Your task to perform on an android device: create a new album in the google photos Image 0: 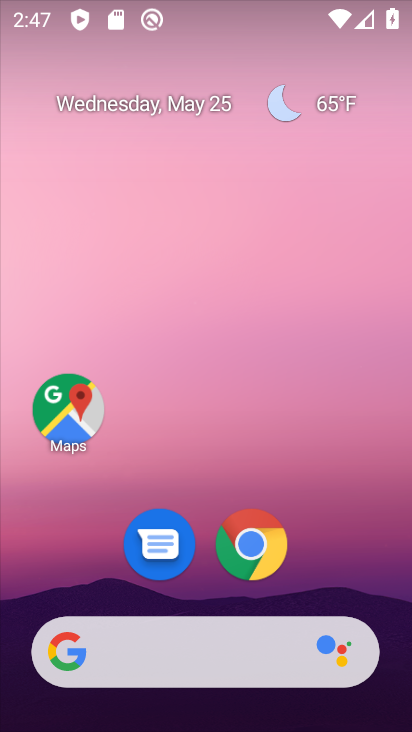
Step 0: drag from (374, 613) to (238, 152)
Your task to perform on an android device: create a new album in the google photos Image 1: 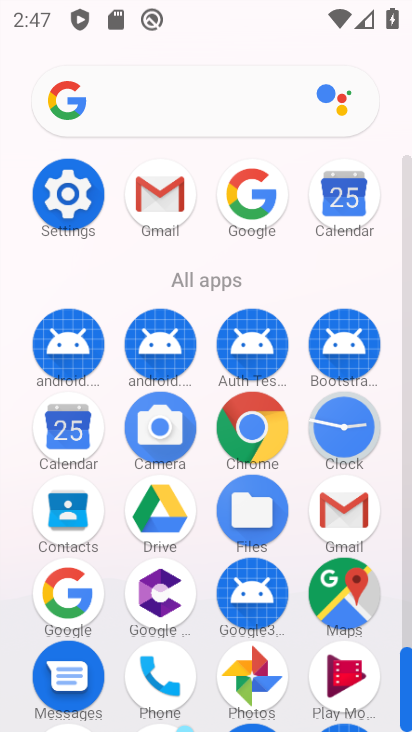
Step 1: click (269, 676)
Your task to perform on an android device: create a new album in the google photos Image 2: 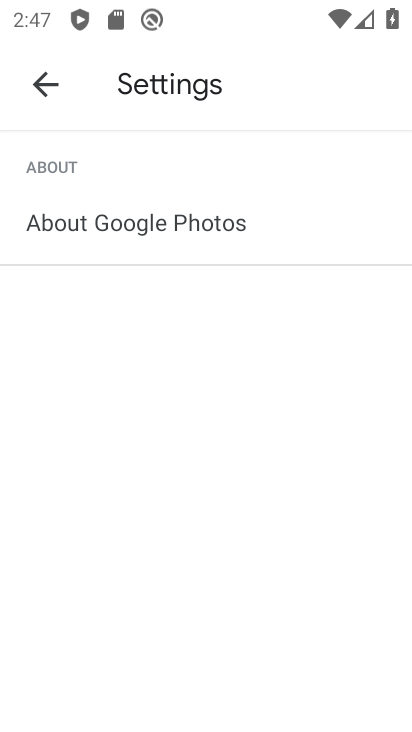
Step 2: click (42, 72)
Your task to perform on an android device: create a new album in the google photos Image 3: 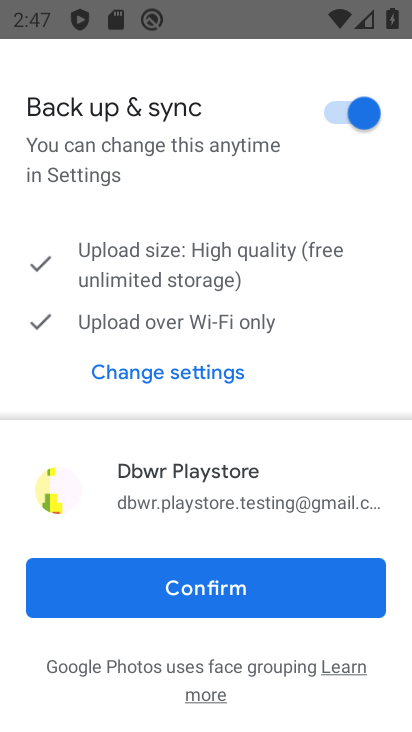
Step 3: click (253, 607)
Your task to perform on an android device: create a new album in the google photos Image 4: 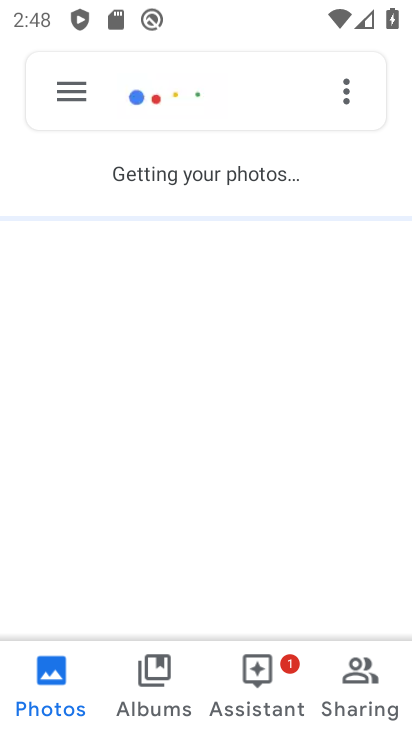
Step 4: click (264, 687)
Your task to perform on an android device: create a new album in the google photos Image 5: 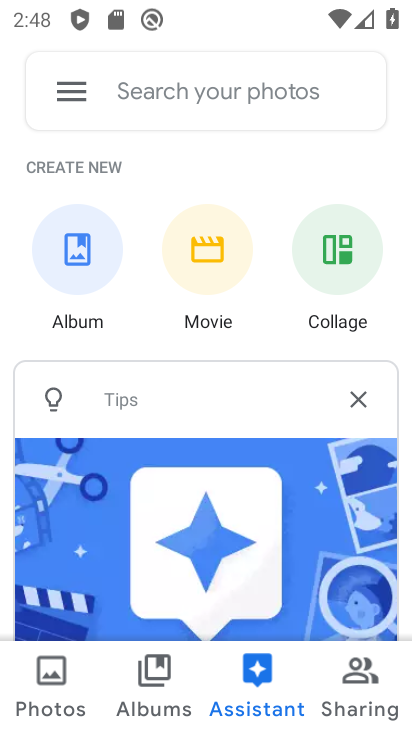
Step 5: click (76, 273)
Your task to perform on an android device: create a new album in the google photos Image 6: 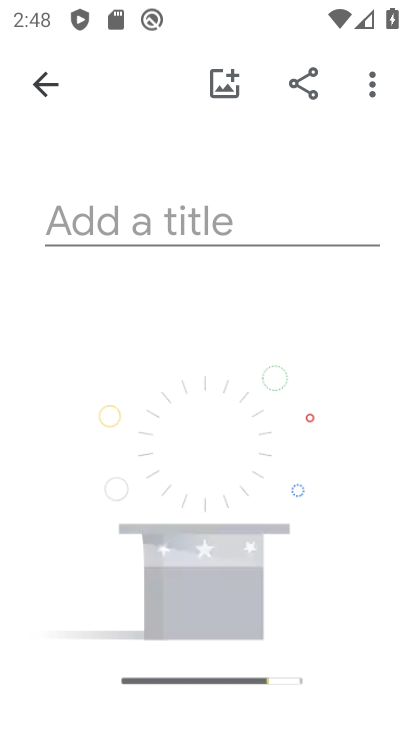
Step 6: click (137, 224)
Your task to perform on an android device: create a new album in the google photos Image 7: 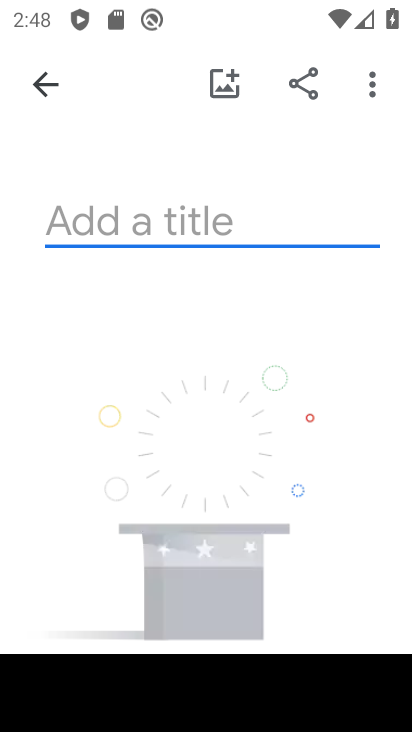
Step 7: type "kjbkjbk"
Your task to perform on an android device: create a new album in the google photos Image 8: 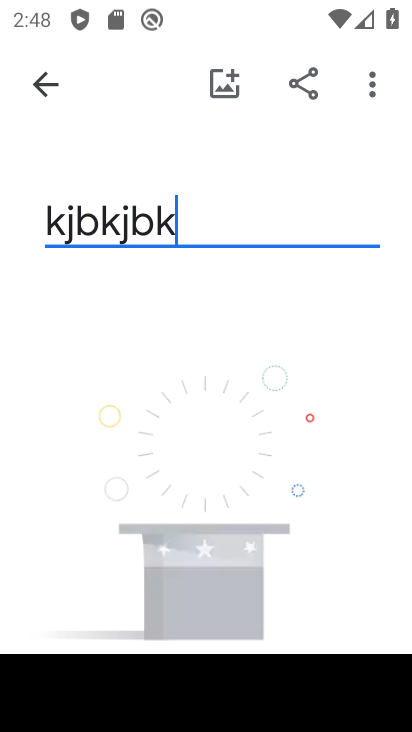
Step 8: click (234, 77)
Your task to perform on an android device: create a new album in the google photos Image 9: 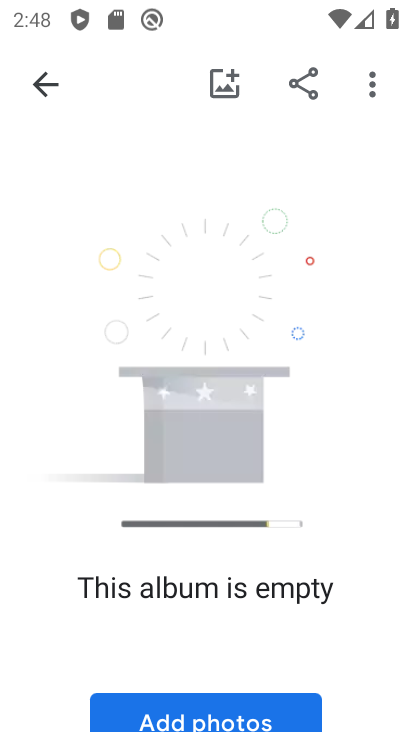
Step 9: click (239, 721)
Your task to perform on an android device: create a new album in the google photos Image 10: 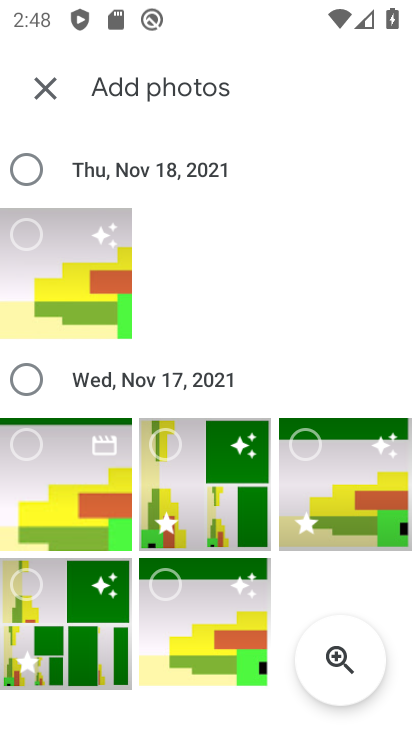
Step 10: click (104, 321)
Your task to perform on an android device: create a new album in the google photos Image 11: 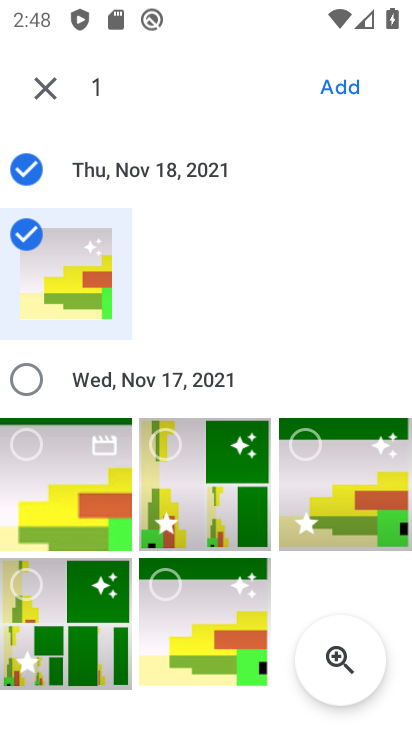
Step 11: click (317, 100)
Your task to perform on an android device: create a new album in the google photos Image 12: 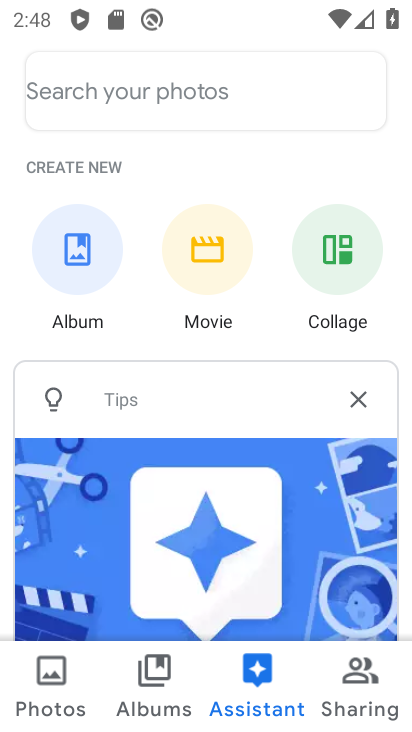
Step 12: task complete